Your task to perform on an android device: Go to battery settings Image 0: 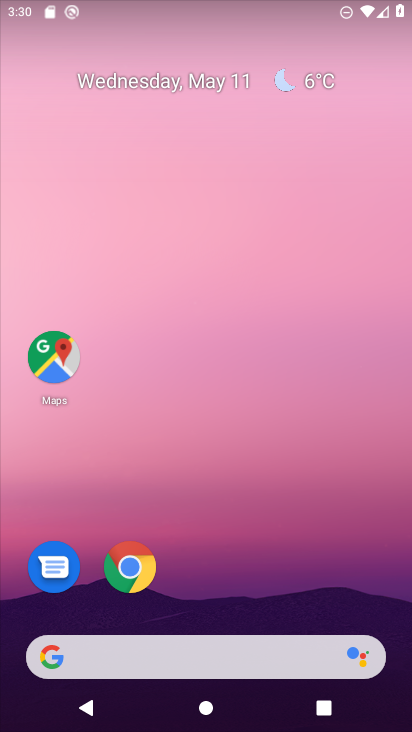
Step 0: drag from (259, 555) to (188, 174)
Your task to perform on an android device: Go to battery settings Image 1: 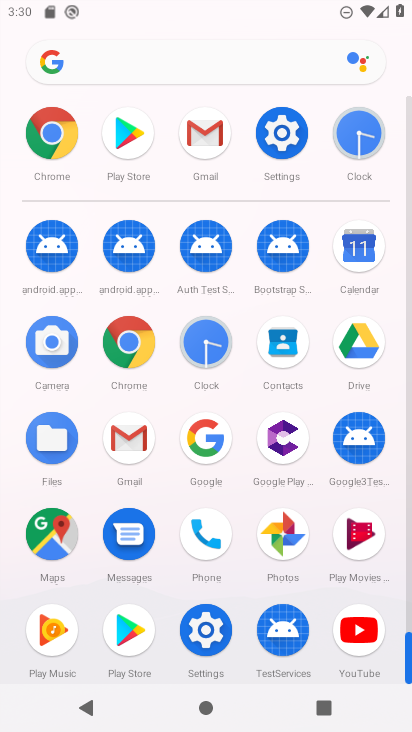
Step 1: click (283, 145)
Your task to perform on an android device: Go to battery settings Image 2: 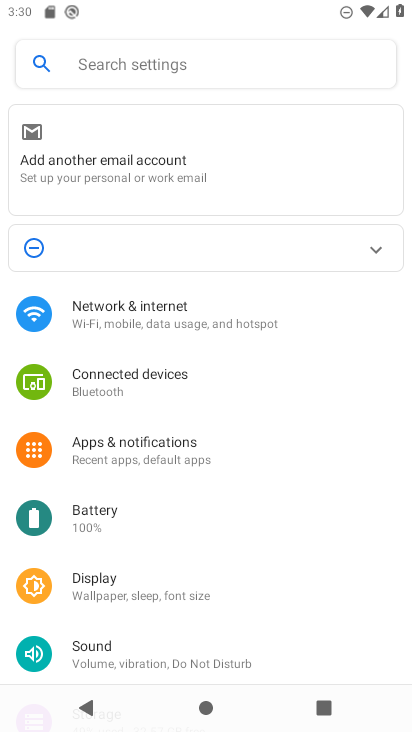
Step 2: click (157, 512)
Your task to perform on an android device: Go to battery settings Image 3: 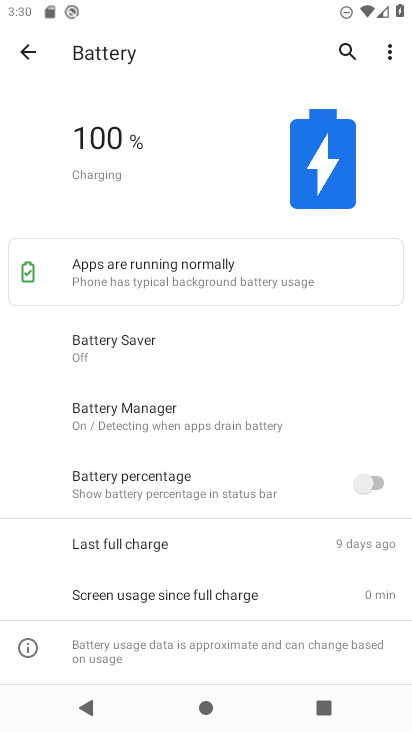
Step 3: task complete